Your task to perform on an android device: add a contact in the contacts app Image 0: 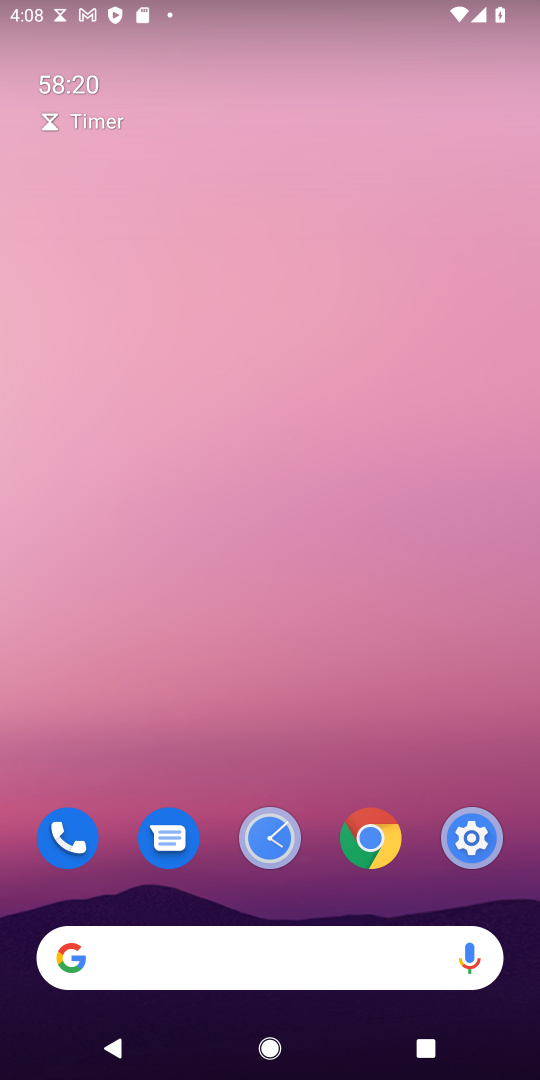
Step 0: drag from (320, 780) to (208, 217)
Your task to perform on an android device: add a contact in the contacts app Image 1: 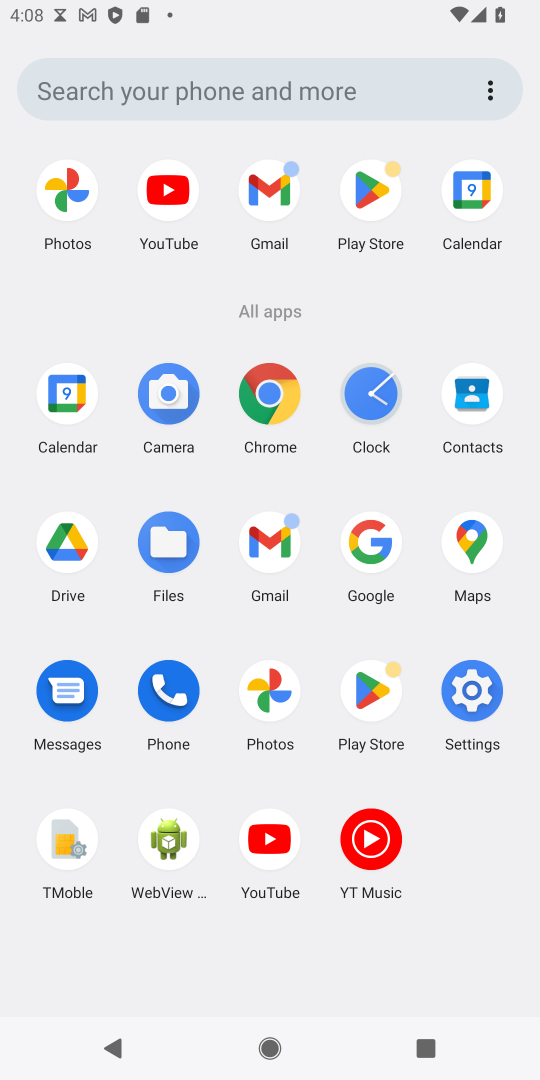
Step 1: click (462, 414)
Your task to perform on an android device: add a contact in the contacts app Image 2: 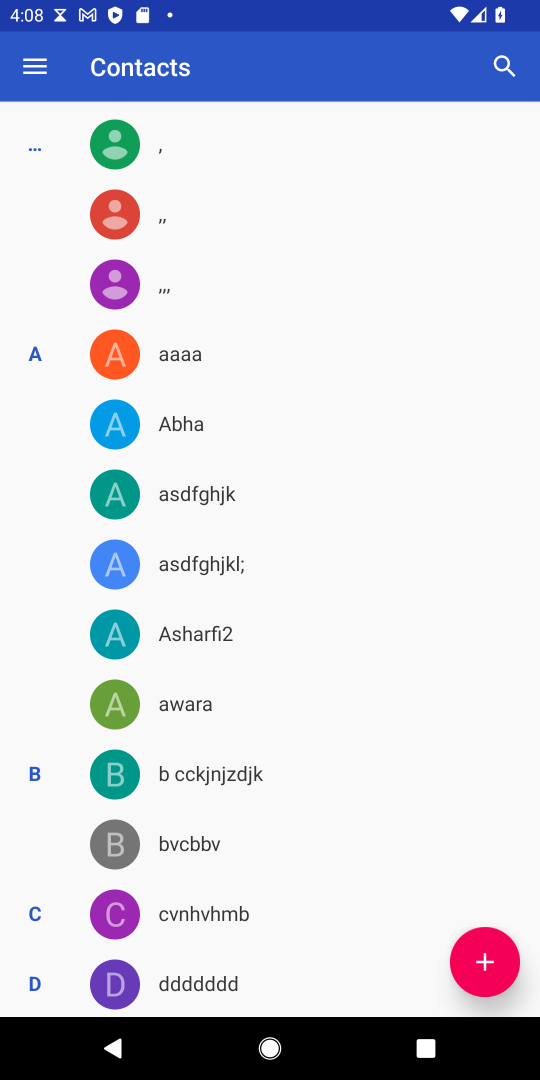
Step 2: click (492, 966)
Your task to perform on an android device: add a contact in the contacts app Image 3: 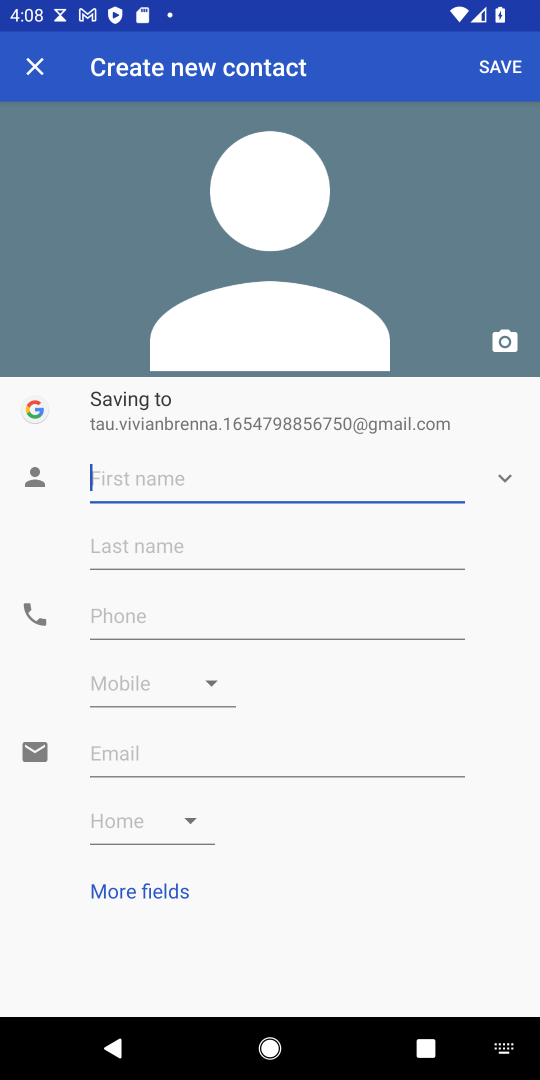
Step 3: type "v bnvbn"
Your task to perform on an android device: add a contact in the contacts app Image 4: 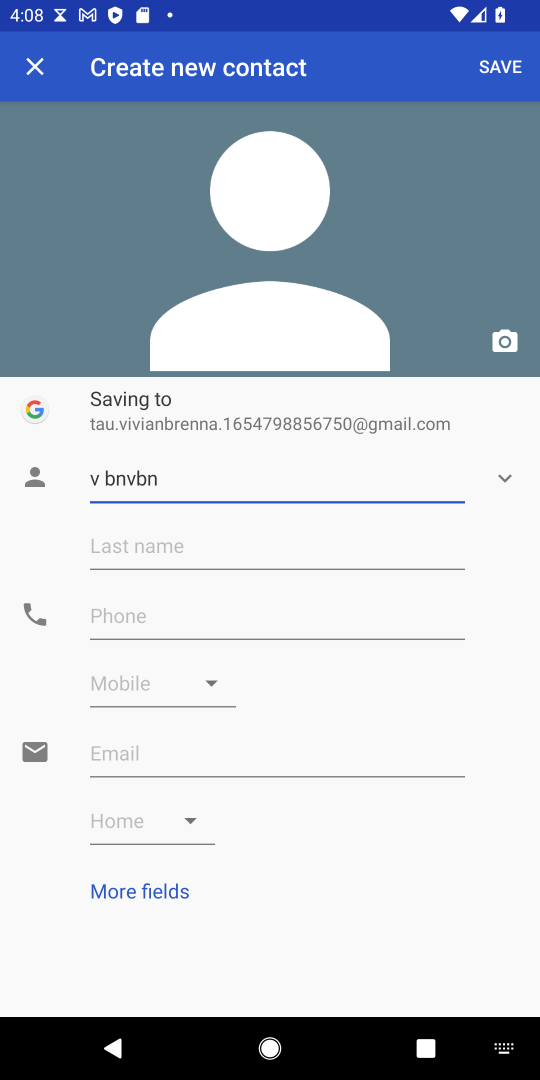
Step 4: click (323, 621)
Your task to perform on an android device: add a contact in the contacts app Image 5: 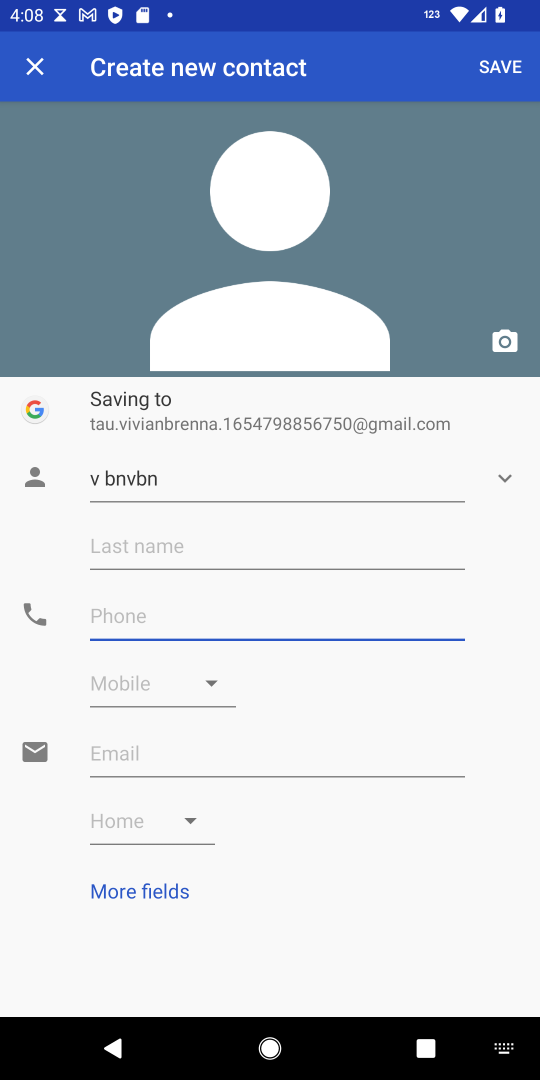
Step 5: type "687678"
Your task to perform on an android device: add a contact in the contacts app Image 6: 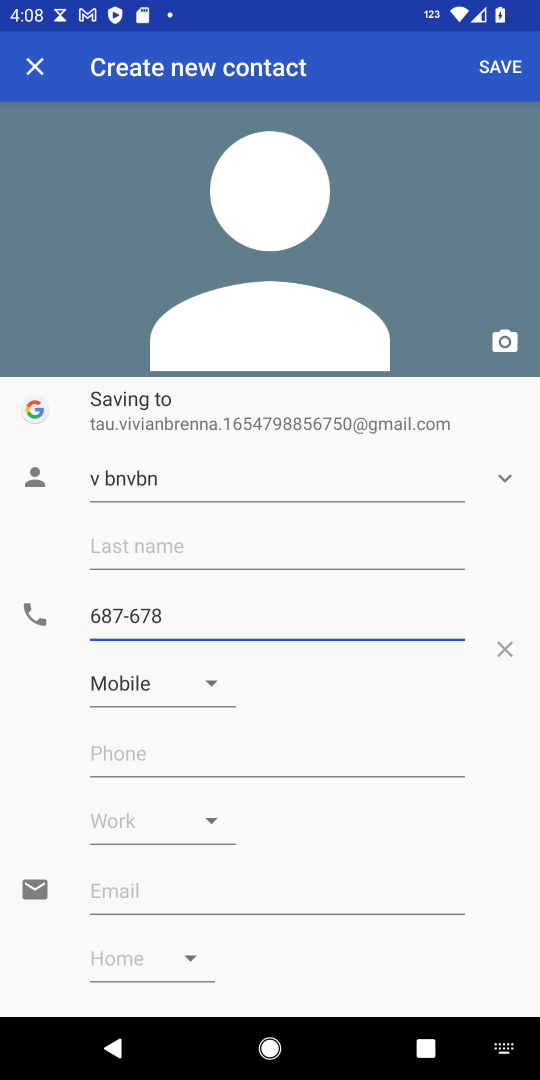
Step 6: click (499, 54)
Your task to perform on an android device: add a contact in the contacts app Image 7: 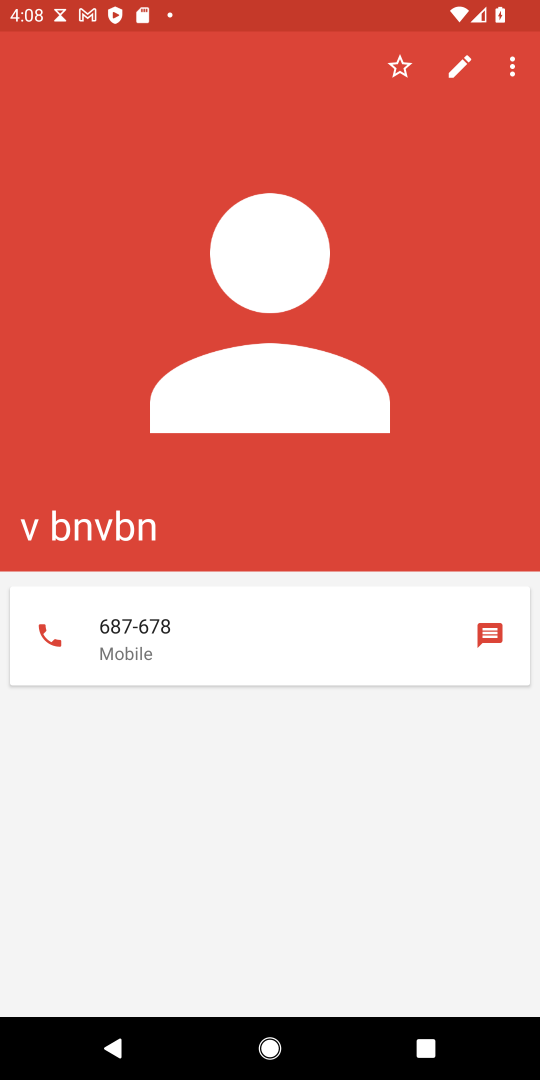
Step 7: task complete